Your task to perform on an android device: turn off airplane mode Image 0: 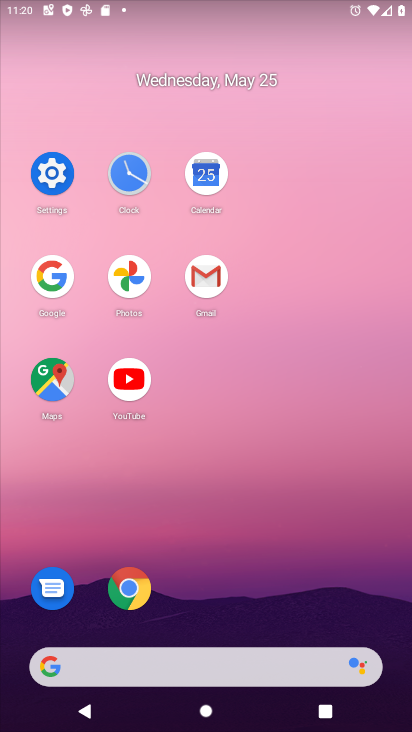
Step 0: click (42, 189)
Your task to perform on an android device: turn off airplane mode Image 1: 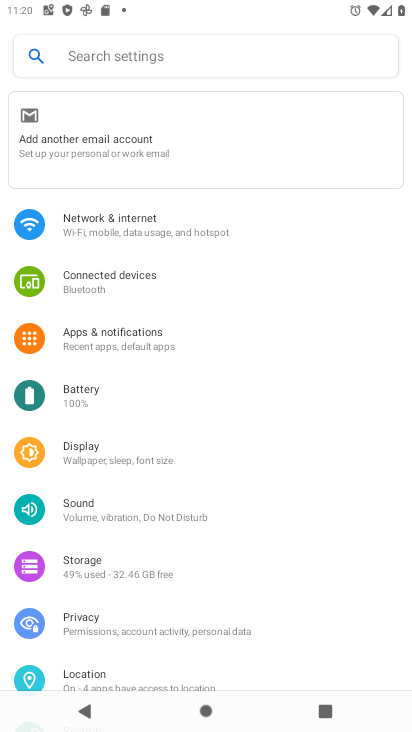
Step 1: click (171, 231)
Your task to perform on an android device: turn off airplane mode Image 2: 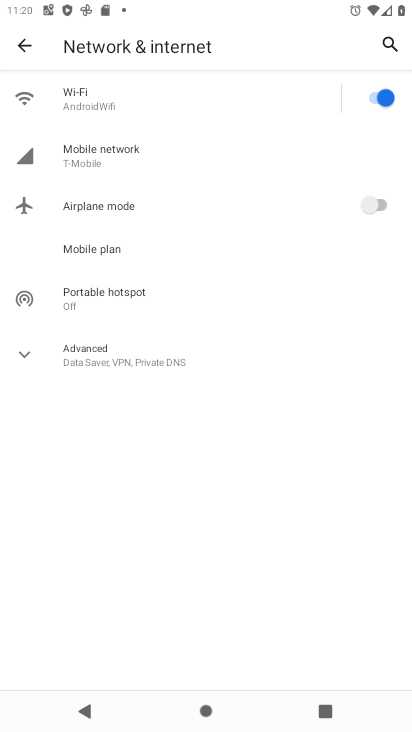
Step 2: task complete